Your task to perform on an android device: toggle location history Image 0: 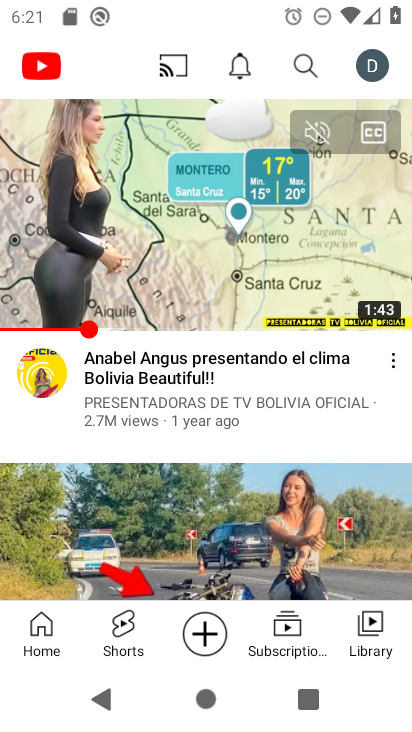
Step 0: press home button
Your task to perform on an android device: toggle location history Image 1: 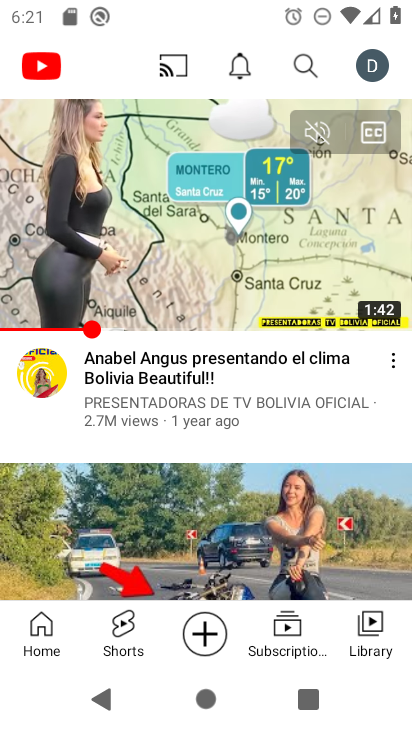
Step 1: press home button
Your task to perform on an android device: toggle location history Image 2: 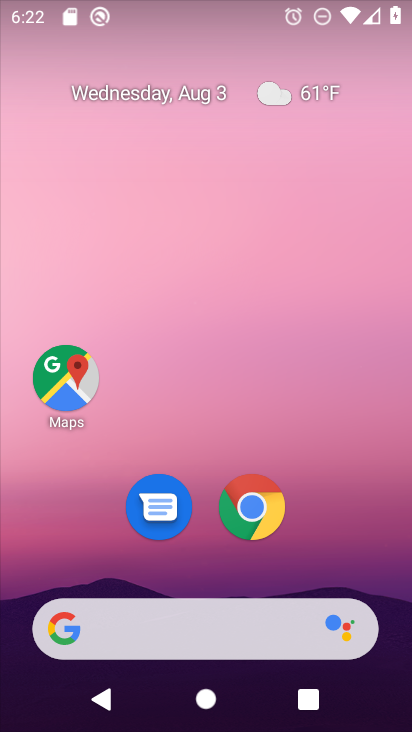
Step 2: drag from (310, 554) to (398, 68)
Your task to perform on an android device: toggle location history Image 3: 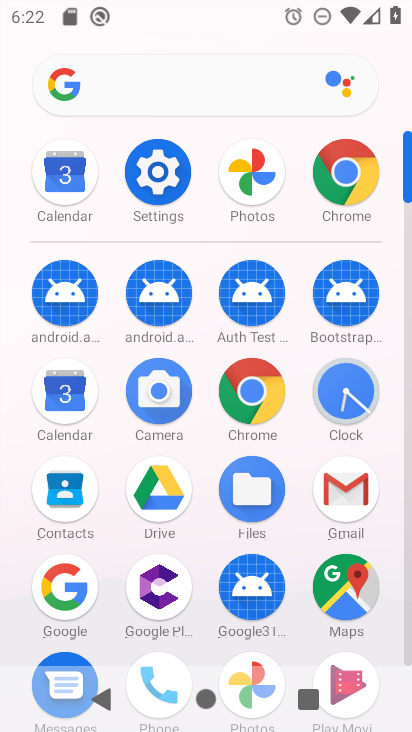
Step 3: click (167, 171)
Your task to perform on an android device: toggle location history Image 4: 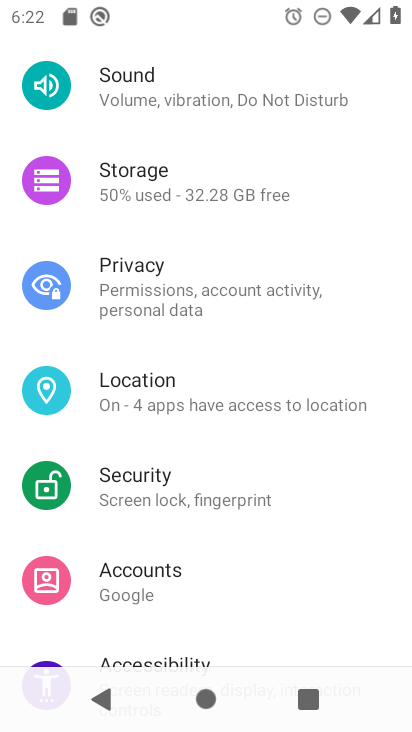
Step 4: click (187, 398)
Your task to perform on an android device: toggle location history Image 5: 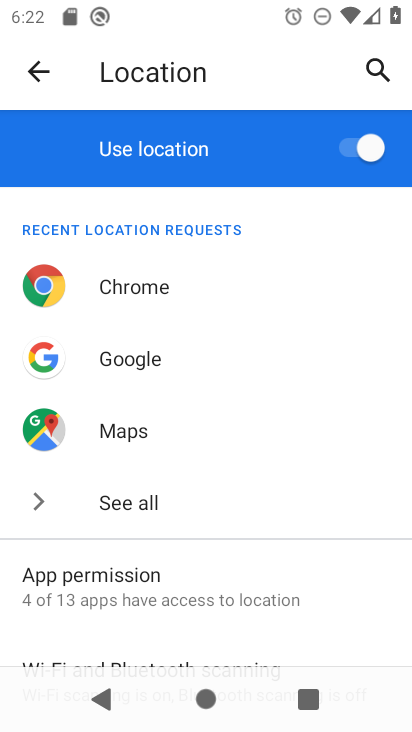
Step 5: drag from (262, 611) to (288, 73)
Your task to perform on an android device: toggle location history Image 6: 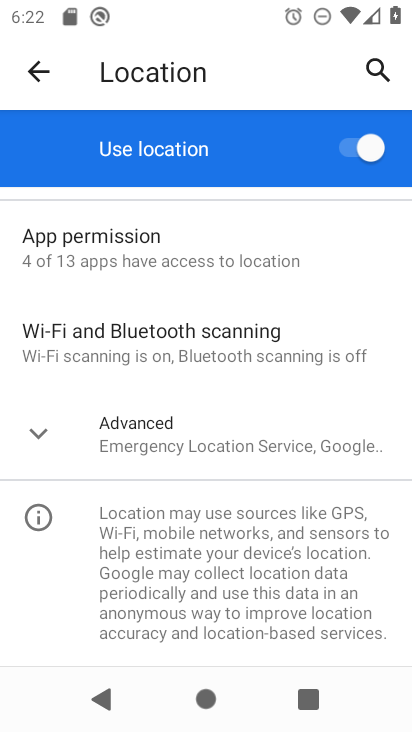
Step 6: click (168, 435)
Your task to perform on an android device: toggle location history Image 7: 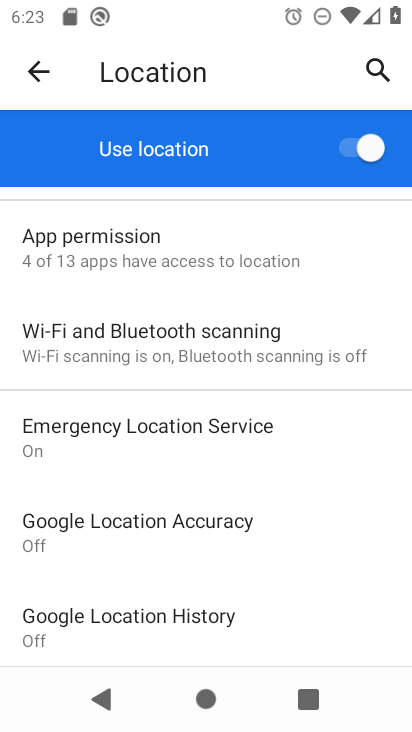
Step 7: click (210, 618)
Your task to perform on an android device: toggle location history Image 8: 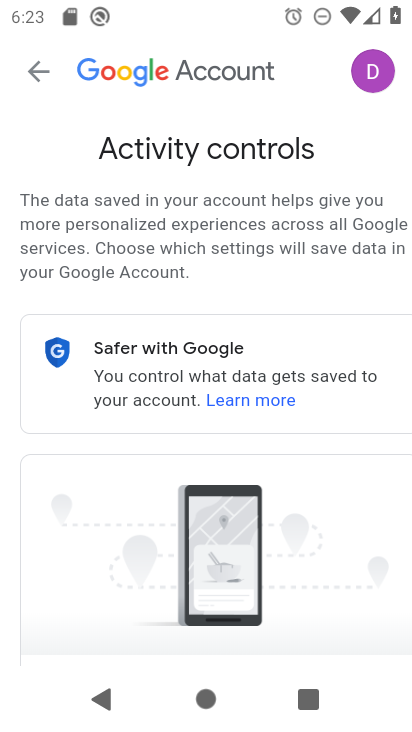
Step 8: task complete